Your task to perform on an android device: Go to ESPN.com Image 0: 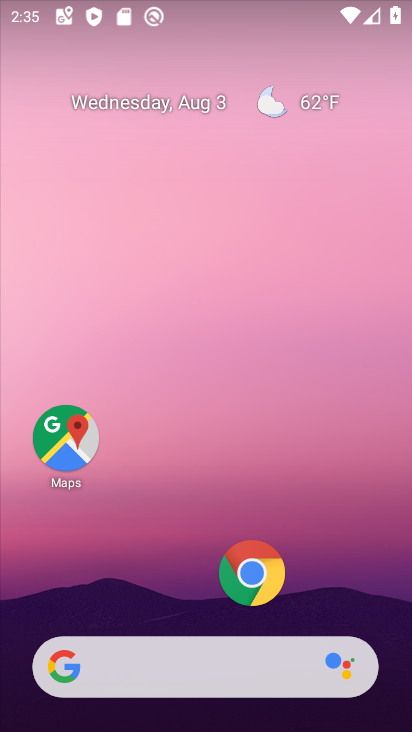
Step 0: click (255, 578)
Your task to perform on an android device: Go to ESPN.com Image 1: 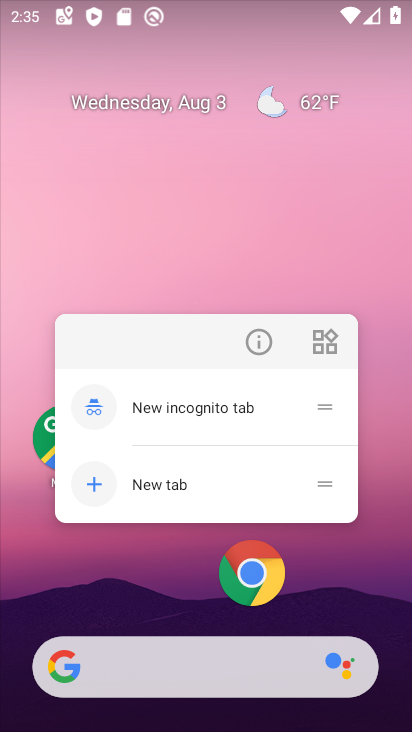
Step 1: click (253, 581)
Your task to perform on an android device: Go to ESPN.com Image 2: 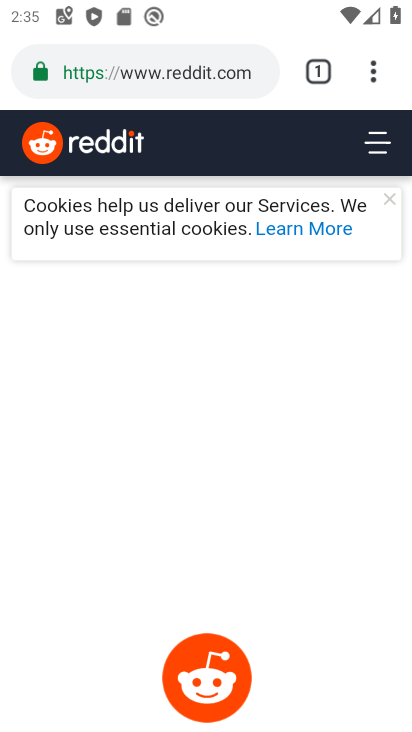
Step 2: click (155, 77)
Your task to perform on an android device: Go to ESPN.com Image 3: 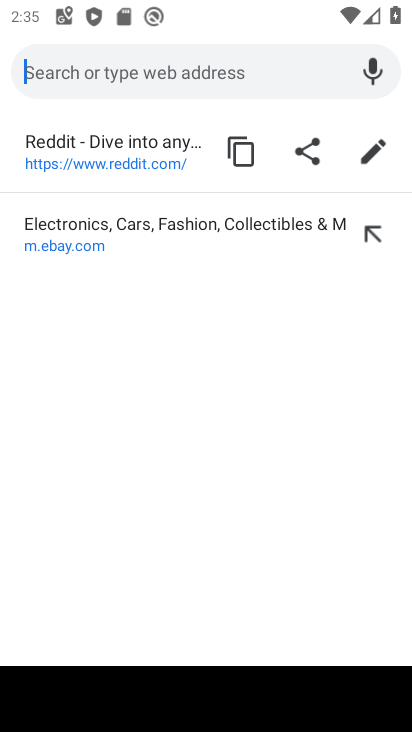
Step 3: type "ESPN.com"
Your task to perform on an android device: Go to ESPN.com Image 4: 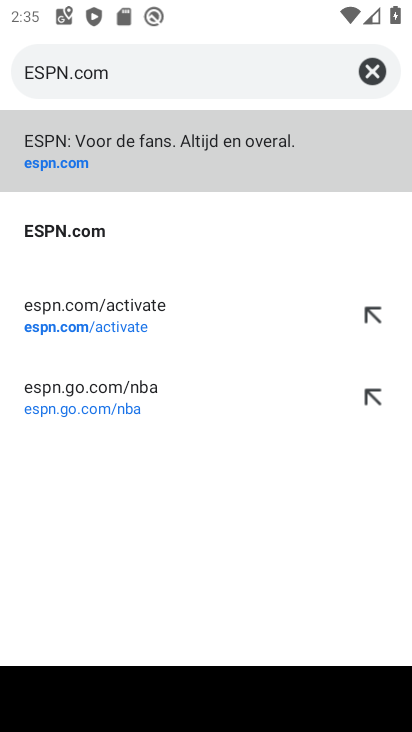
Step 4: click (110, 149)
Your task to perform on an android device: Go to ESPN.com Image 5: 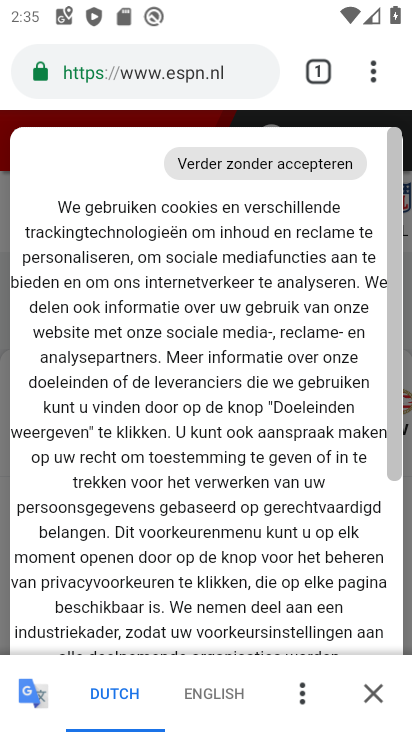
Step 5: task complete